Your task to perform on an android device: see sites visited before in the chrome app Image 0: 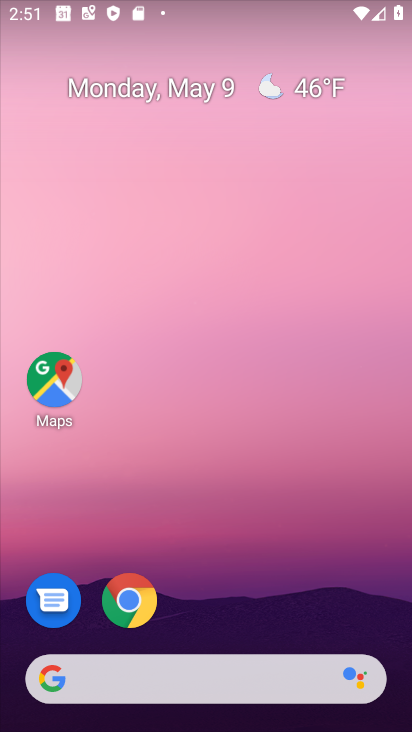
Step 0: click (108, 606)
Your task to perform on an android device: see sites visited before in the chrome app Image 1: 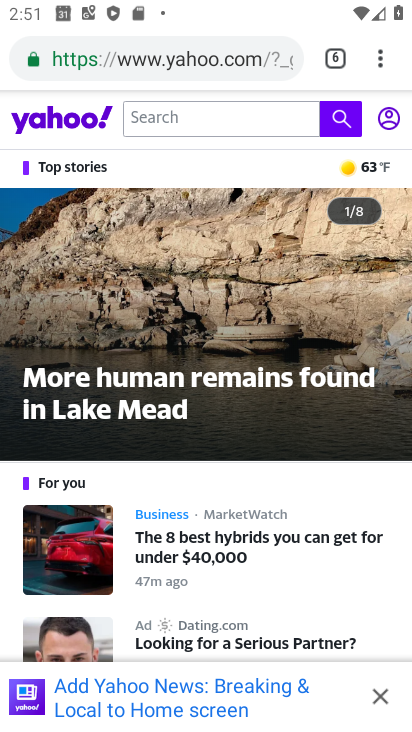
Step 1: task complete